Your task to perform on an android device: delete location history Image 0: 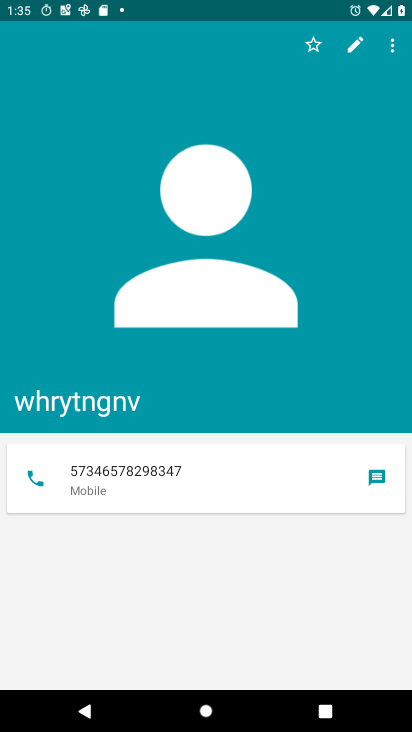
Step 0: press home button
Your task to perform on an android device: delete location history Image 1: 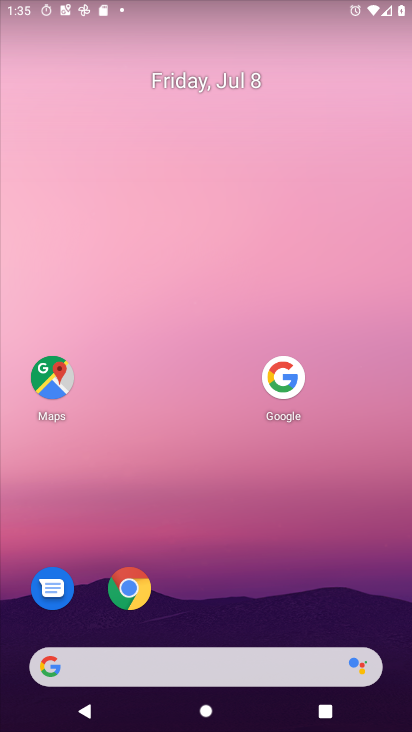
Step 1: drag from (160, 653) to (287, 206)
Your task to perform on an android device: delete location history Image 2: 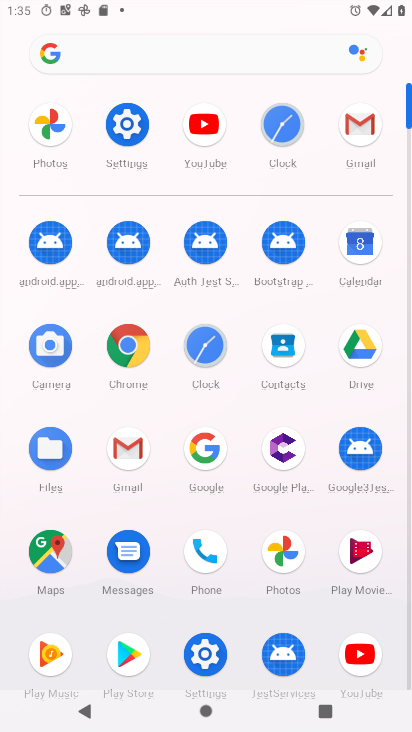
Step 2: click (122, 121)
Your task to perform on an android device: delete location history Image 3: 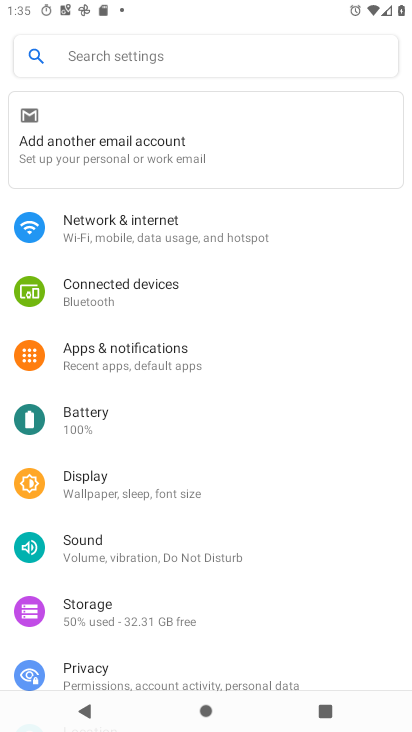
Step 3: drag from (214, 604) to (269, 112)
Your task to perform on an android device: delete location history Image 4: 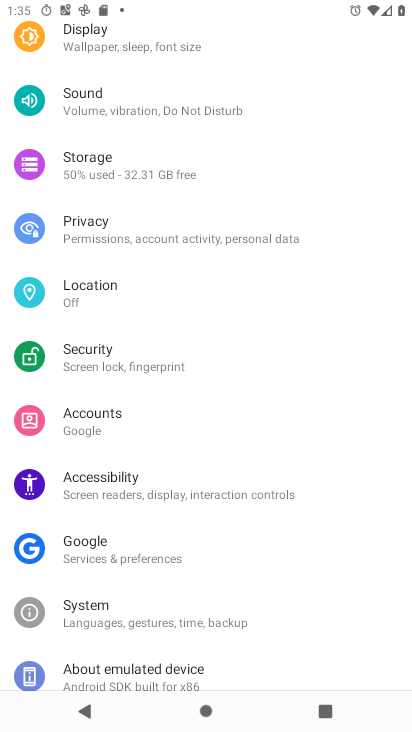
Step 4: click (88, 294)
Your task to perform on an android device: delete location history Image 5: 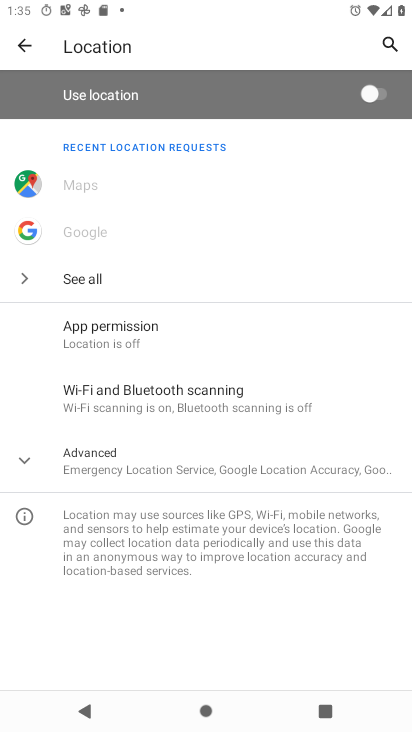
Step 5: click (139, 455)
Your task to perform on an android device: delete location history Image 6: 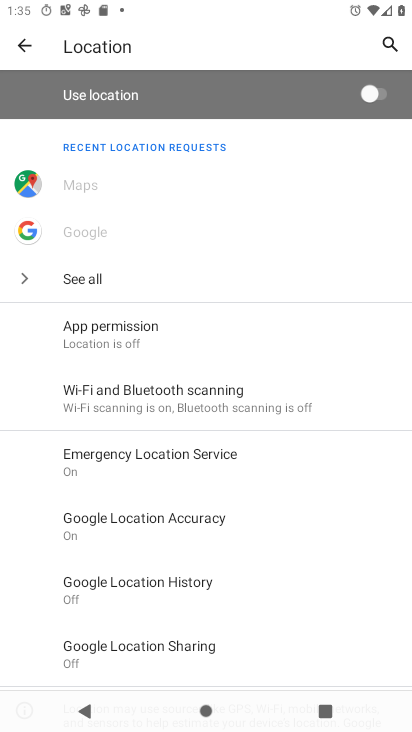
Step 6: drag from (197, 617) to (307, 357)
Your task to perform on an android device: delete location history Image 7: 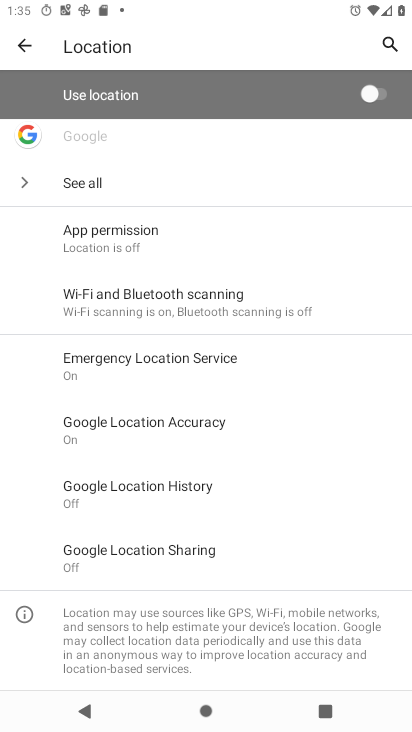
Step 7: click (194, 490)
Your task to perform on an android device: delete location history Image 8: 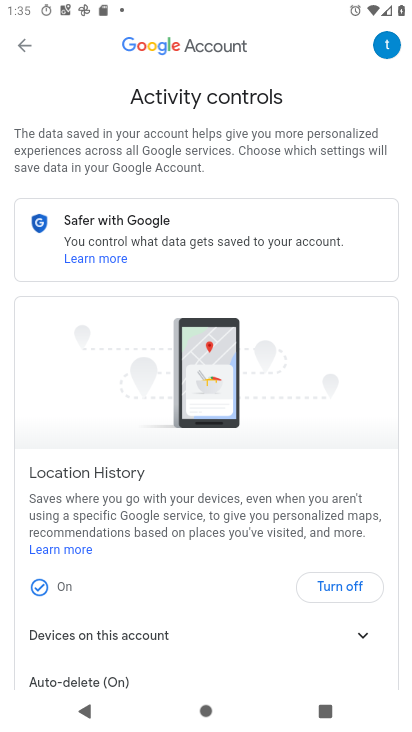
Step 8: drag from (174, 616) to (252, 155)
Your task to perform on an android device: delete location history Image 9: 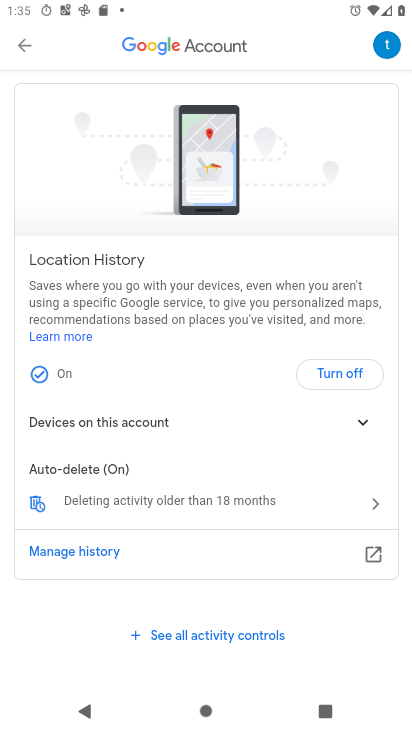
Step 9: click (370, 505)
Your task to perform on an android device: delete location history Image 10: 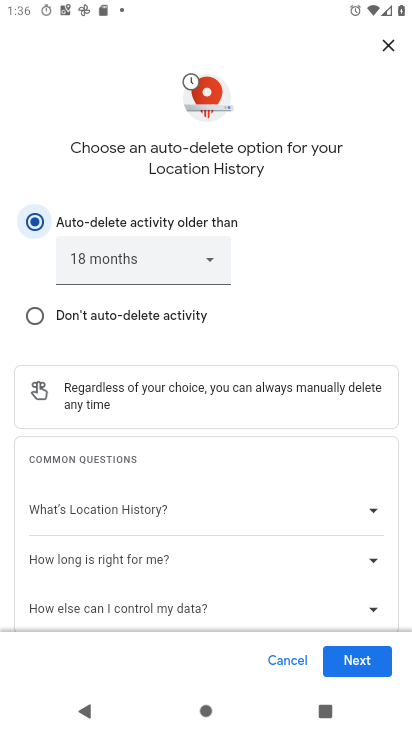
Step 10: click (344, 663)
Your task to perform on an android device: delete location history Image 11: 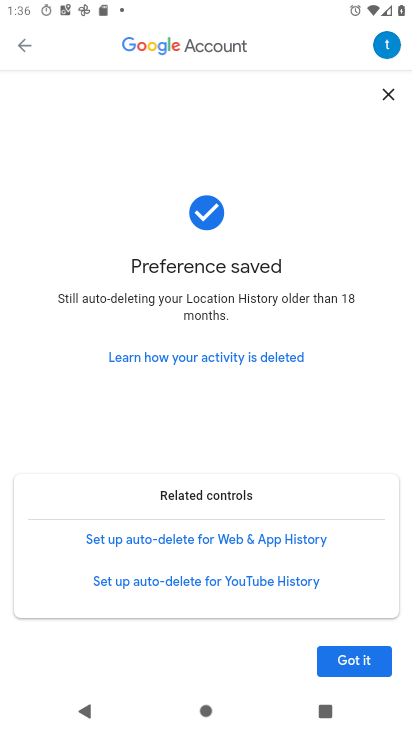
Step 11: click (352, 664)
Your task to perform on an android device: delete location history Image 12: 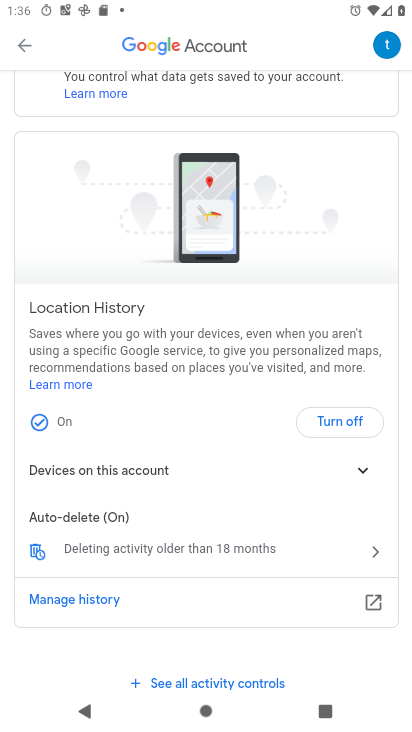
Step 12: task complete